Your task to perform on an android device: move an email to a new category in the gmail app Image 0: 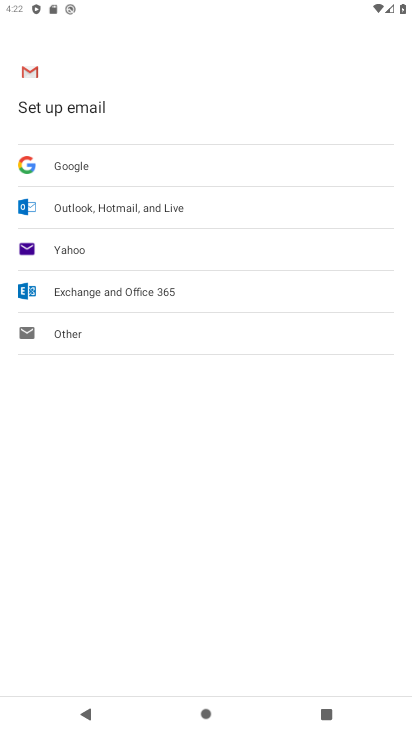
Step 0: press back button
Your task to perform on an android device: move an email to a new category in the gmail app Image 1: 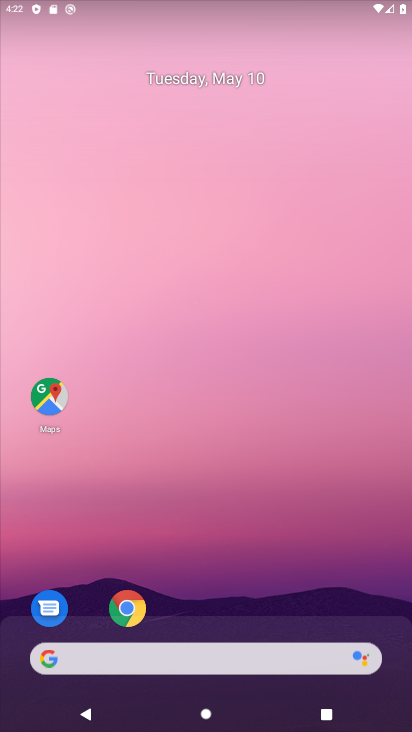
Step 1: drag from (199, 516) to (343, 21)
Your task to perform on an android device: move an email to a new category in the gmail app Image 2: 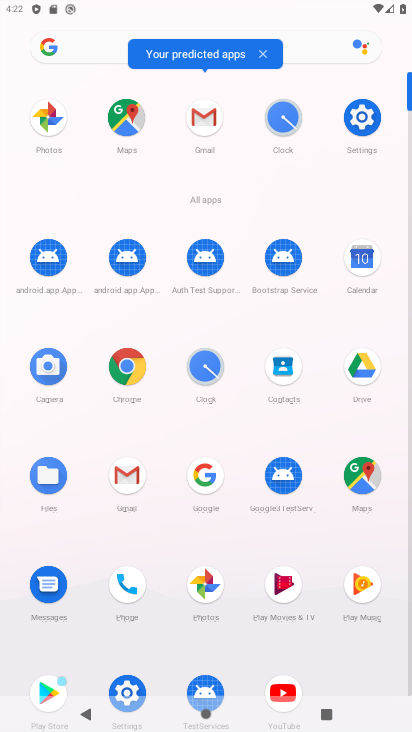
Step 2: click (207, 127)
Your task to perform on an android device: move an email to a new category in the gmail app Image 3: 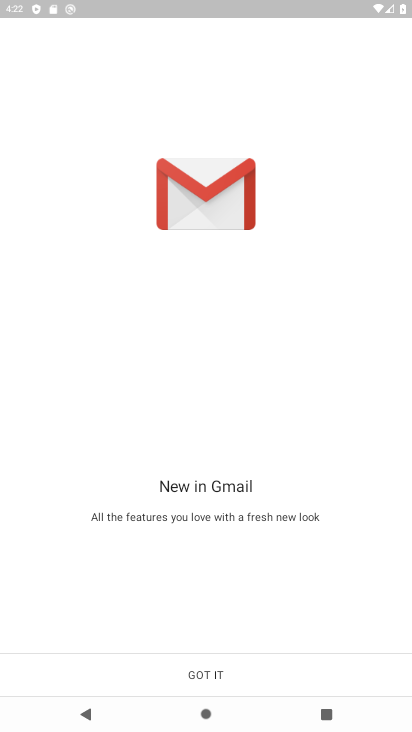
Step 3: click (206, 678)
Your task to perform on an android device: move an email to a new category in the gmail app Image 4: 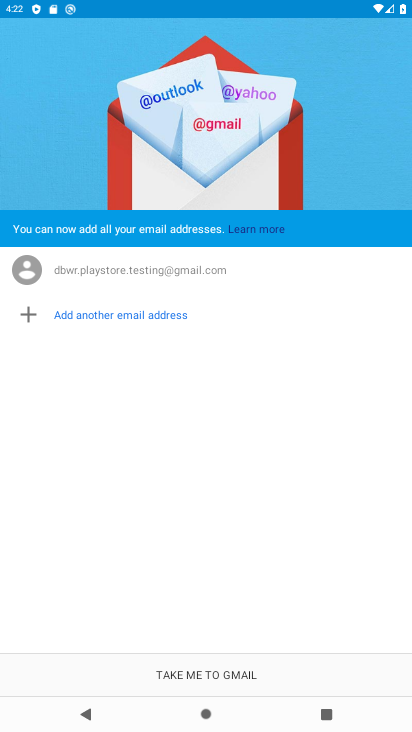
Step 4: click (227, 673)
Your task to perform on an android device: move an email to a new category in the gmail app Image 5: 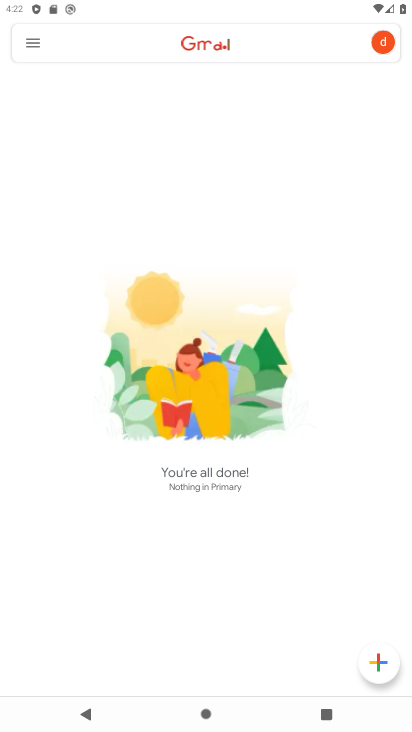
Step 5: click (29, 43)
Your task to perform on an android device: move an email to a new category in the gmail app Image 6: 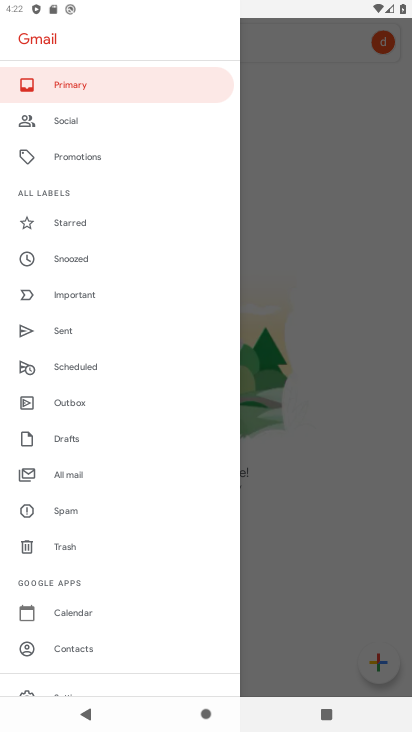
Step 6: click (84, 465)
Your task to perform on an android device: move an email to a new category in the gmail app Image 7: 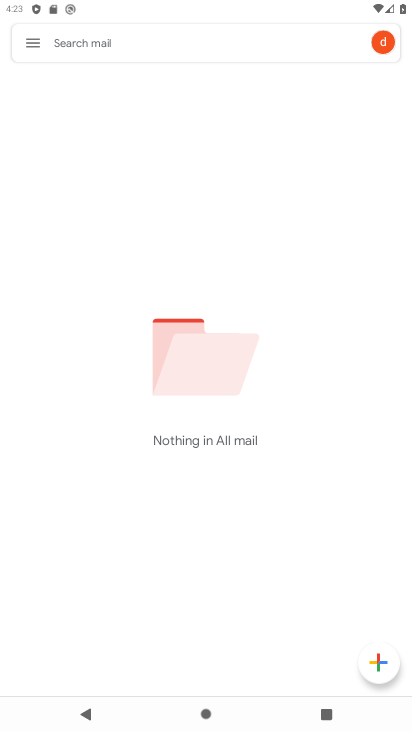
Step 7: task complete